Your task to perform on an android device: Go to CNN.com Image 0: 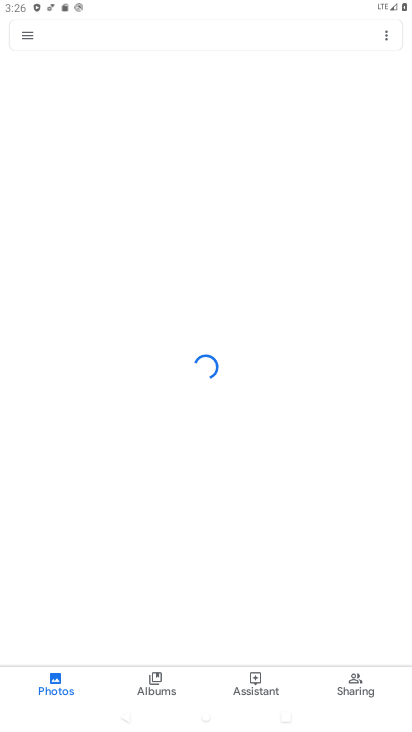
Step 0: press home button
Your task to perform on an android device: Go to CNN.com Image 1: 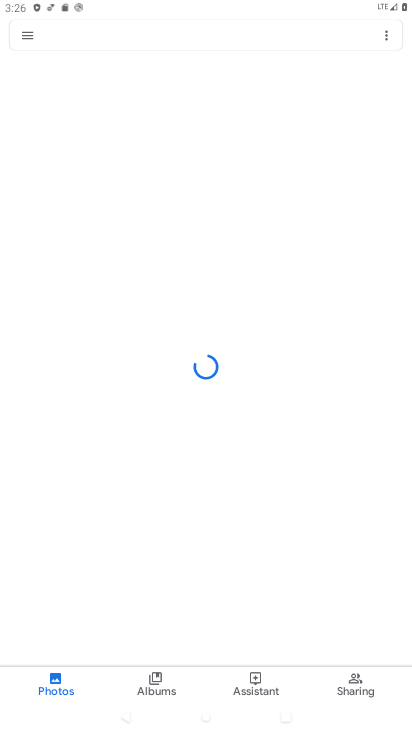
Step 1: press home button
Your task to perform on an android device: Go to CNN.com Image 2: 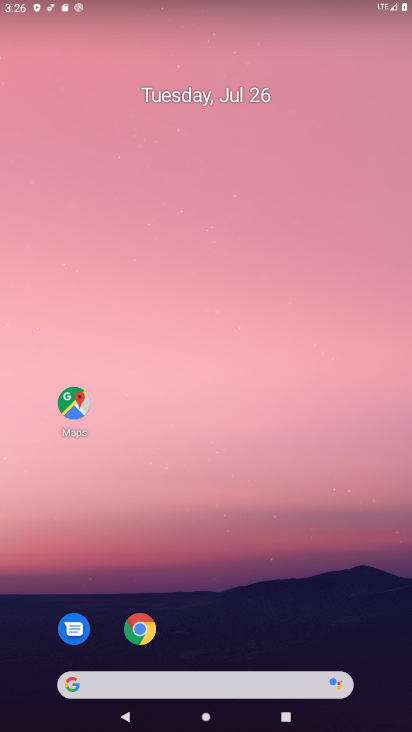
Step 2: click (141, 631)
Your task to perform on an android device: Go to CNN.com Image 3: 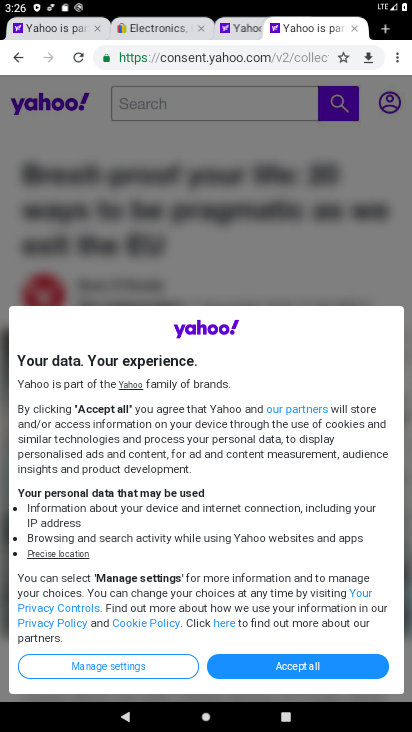
Step 3: click (398, 61)
Your task to perform on an android device: Go to CNN.com Image 4: 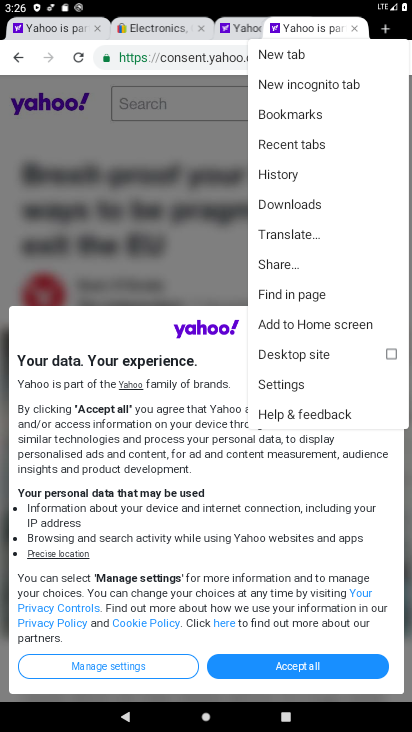
Step 4: click (294, 54)
Your task to perform on an android device: Go to CNN.com Image 5: 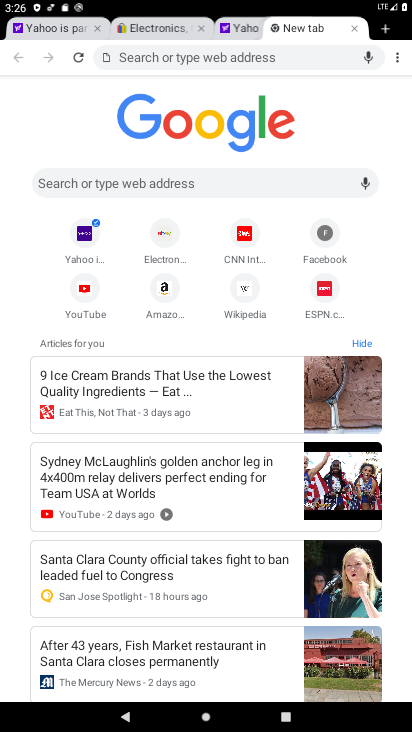
Step 5: click (245, 233)
Your task to perform on an android device: Go to CNN.com Image 6: 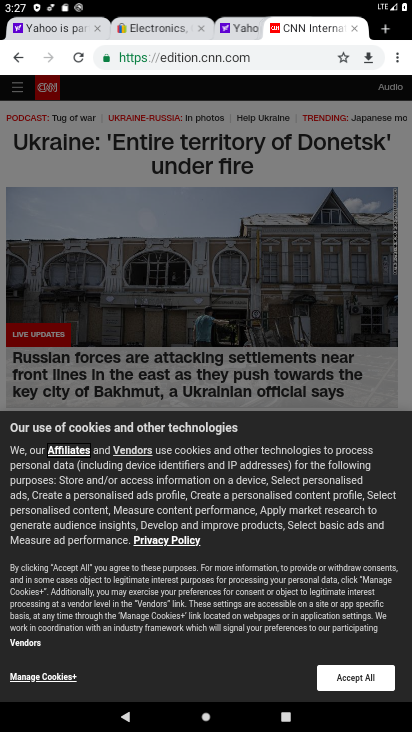
Step 6: task complete